Your task to perform on an android device: Open Google Chrome and open the bookmarks view Image 0: 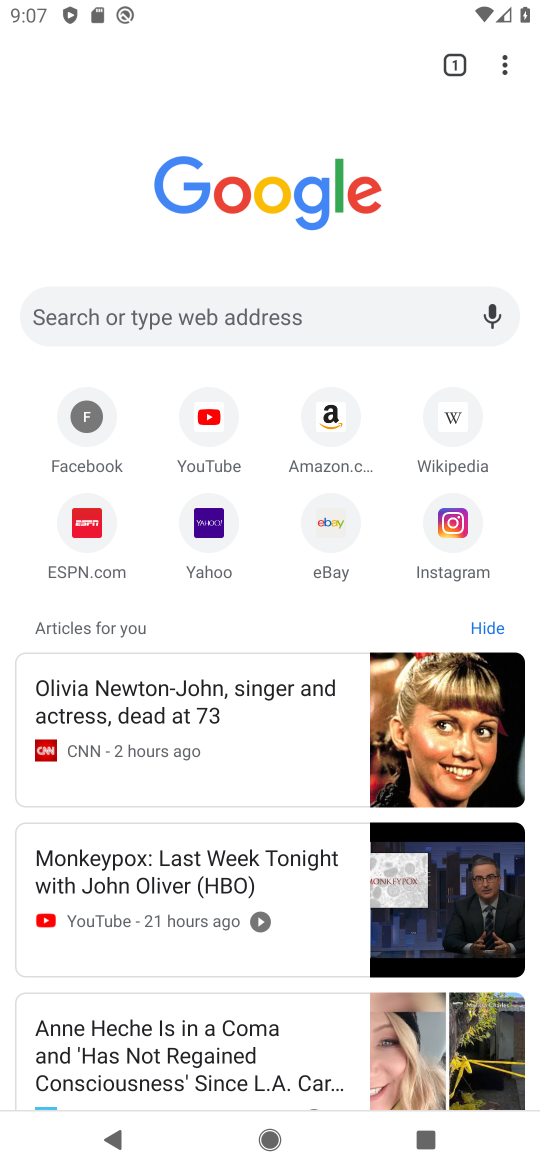
Step 0: press home button
Your task to perform on an android device: Open Google Chrome and open the bookmarks view Image 1: 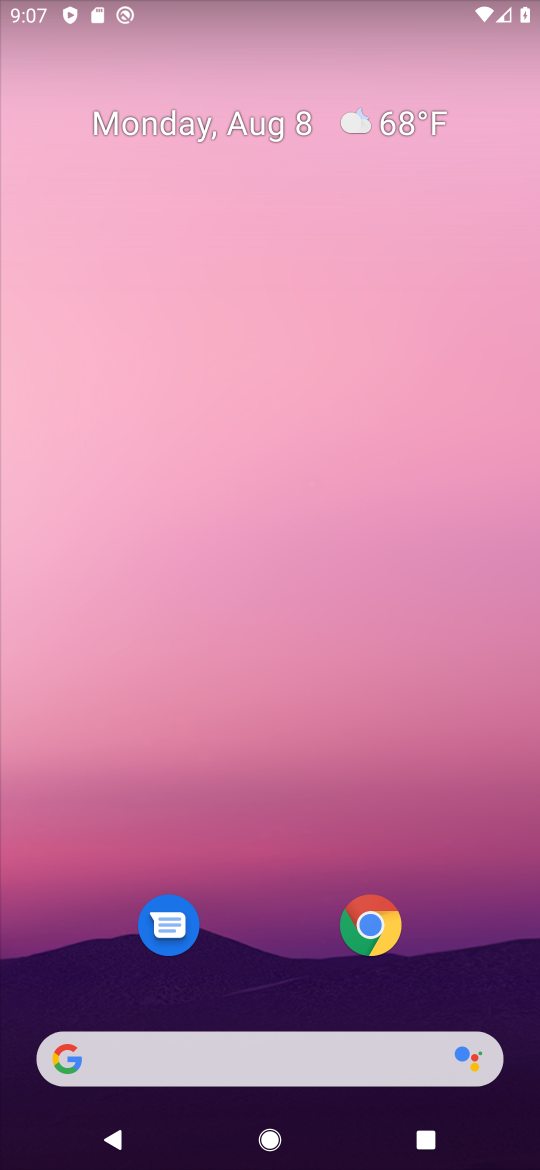
Step 1: drag from (235, 931) to (292, 143)
Your task to perform on an android device: Open Google Chrome and open the bookmarks view Image 2: 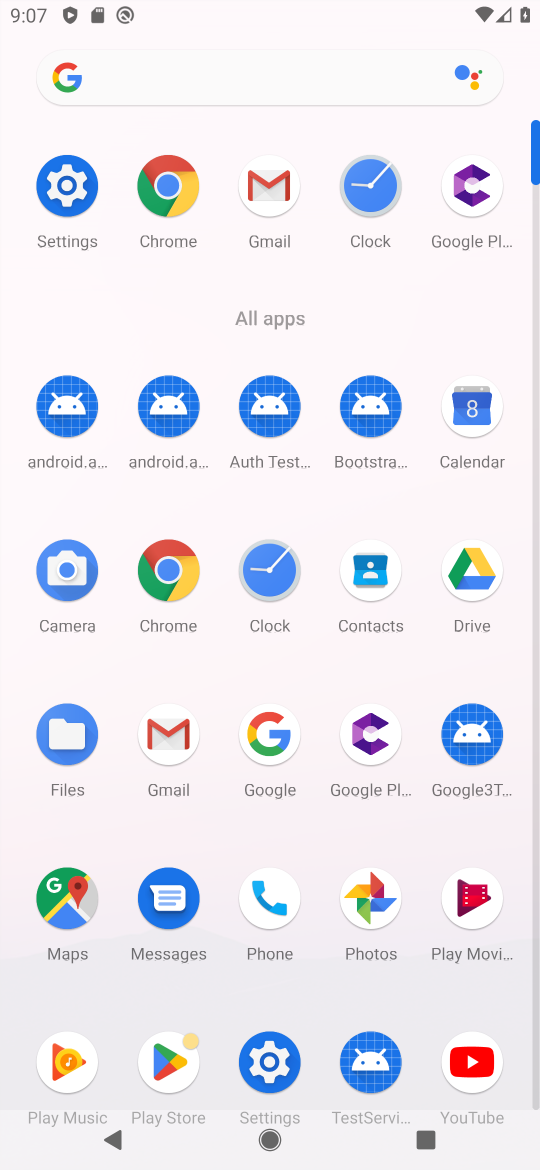
Step 2: click (166, 570)
Your task to perform on an android device: Open Google Chrome and open the bookmarks view Image 3: 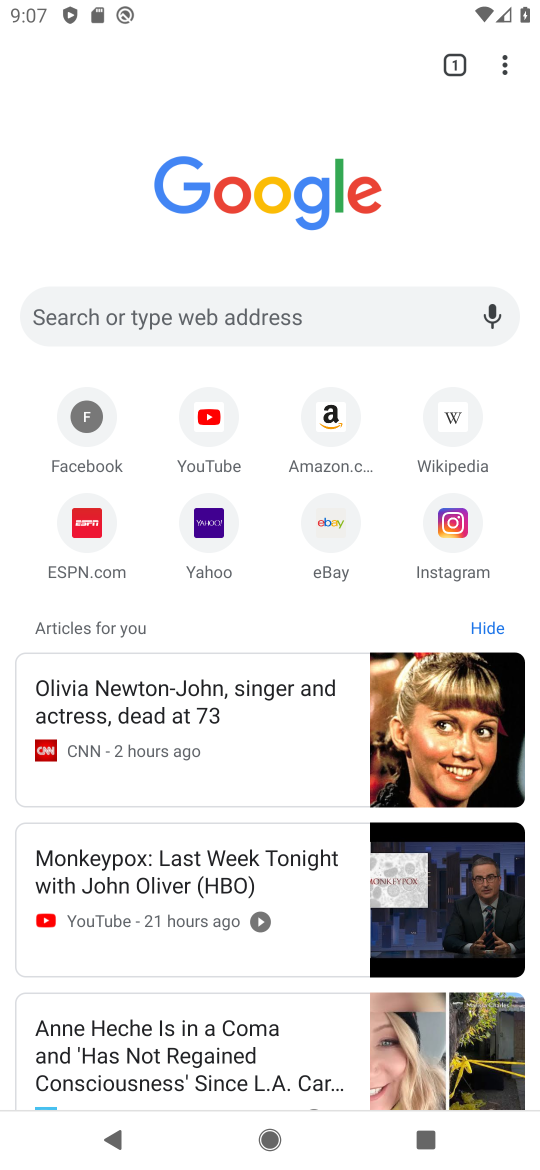
Step 3: task complete